Your task to perform on an android device: Open CNN.com Image 0: 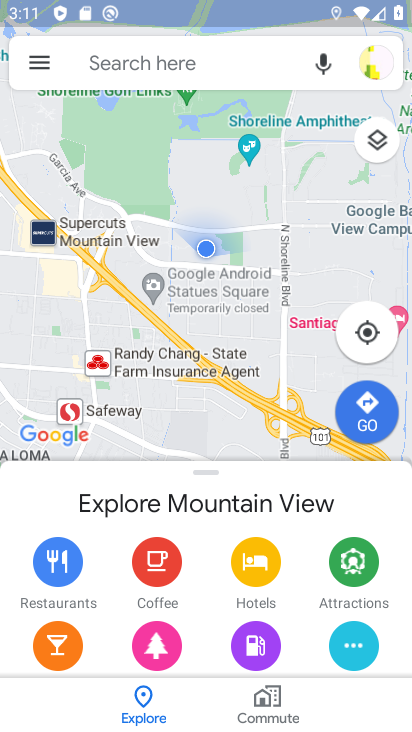
Step 0: press home button
Your task to perform on an android device: Open CNN.com Image 1: 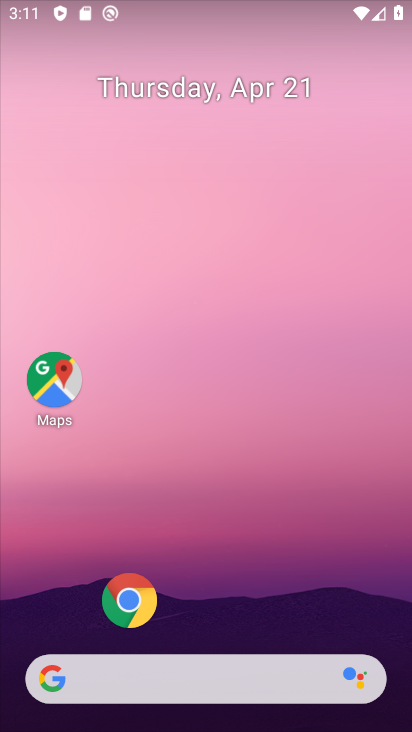
Step 1: click (131, 610)
Your task to perform on an android device: Open CNN.com Image 2: 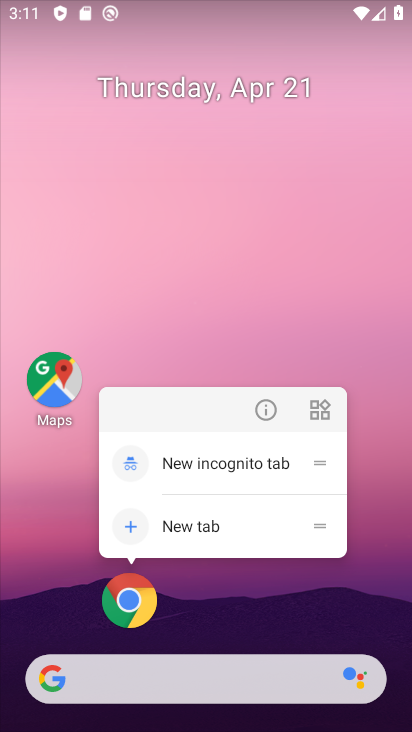
Step 2: click (122, 612)
Your task to perform on an android device: Open CNN.com Image 3: 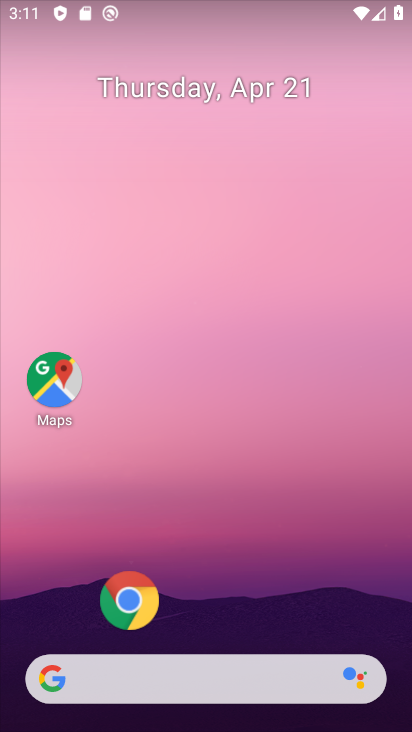
Step 3: click (264, 397)
Your task to perform on an android device: Open CNN.com Image 4: 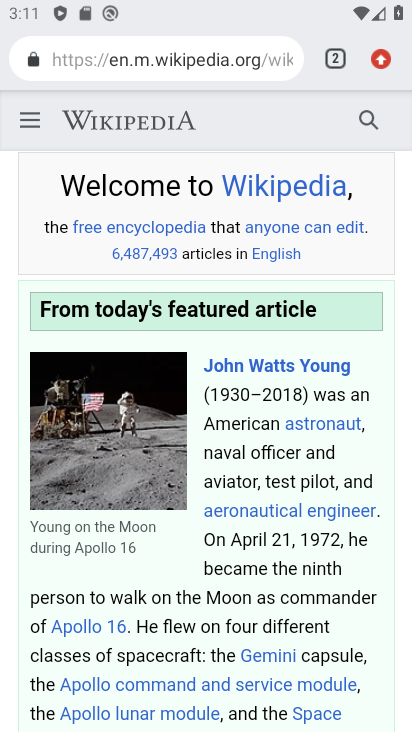
Step 4: click (329, 48)
Your task to perform on an android device: Open CNN.com Image 5: 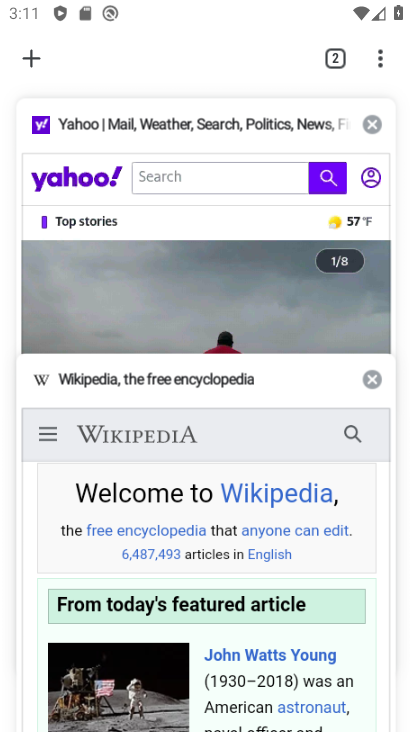
Step 5: click (377, 124)
Your task to perform on an android device: Open CNN.com Image 6: 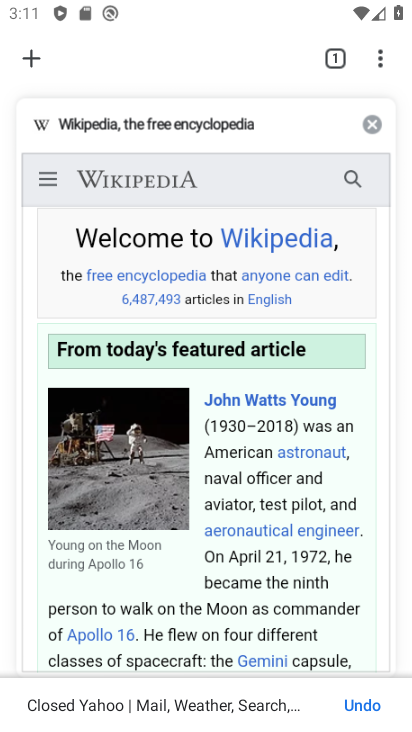
Step 6: click (376, 126)
Your task to perform on an android device: Open CNN.com Image 7: 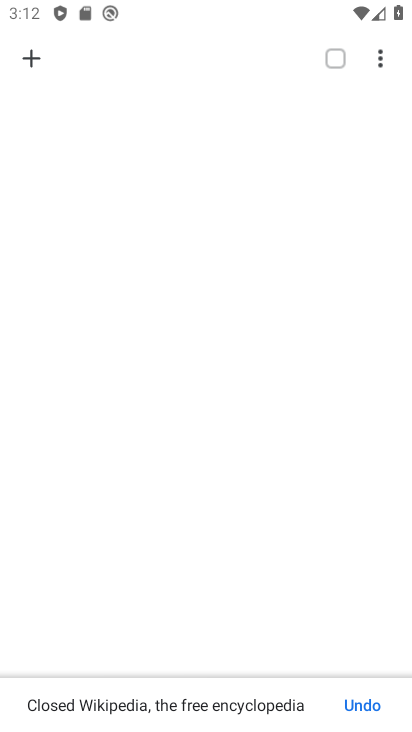
Step 7: click (26, 55)
Your task to perform on an android device: Open CNN.com Image 8: 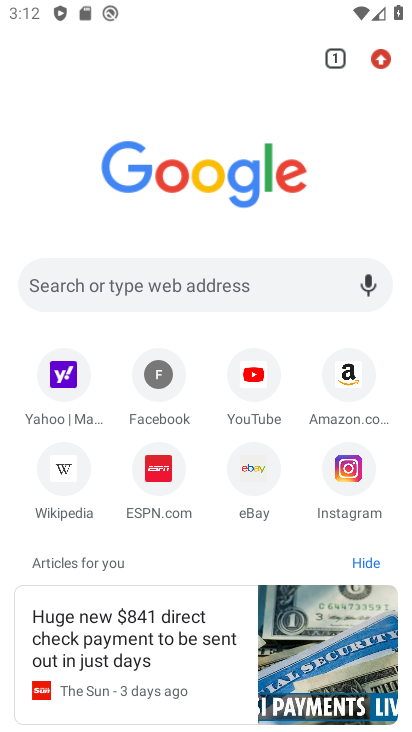
Step 8: click (170, 269)
Your task to perform on an android device: Open CNN.com Image 9: 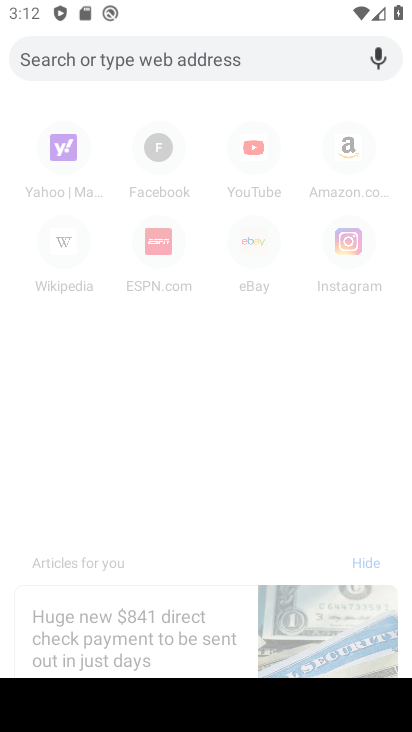
Step 9: type "CNN.com"
Your task to perform on an android device: Open CNN.com Image 10: 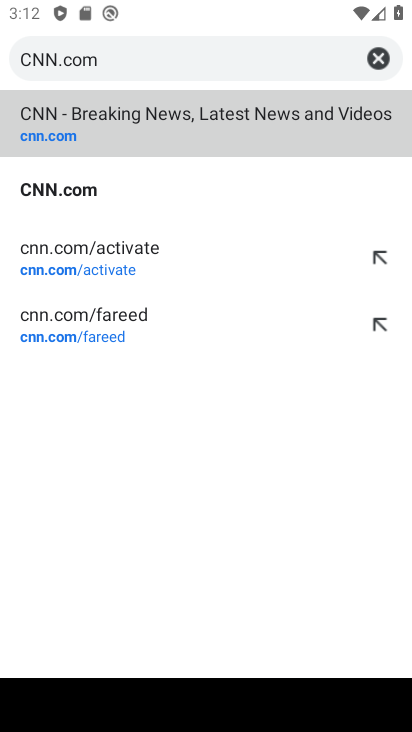
Step 10: click (148, 100)
Your task to perform on an android device: Open CNN.com Image 11: 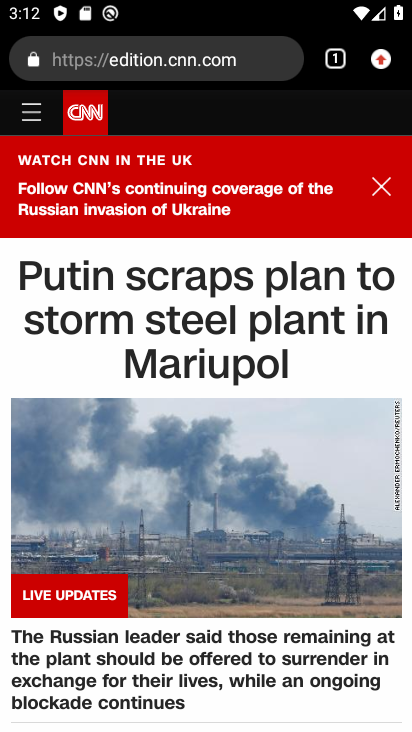
Step 11: task complete